Your task to perform on an android device: turn on bluetooth scan Image 0: 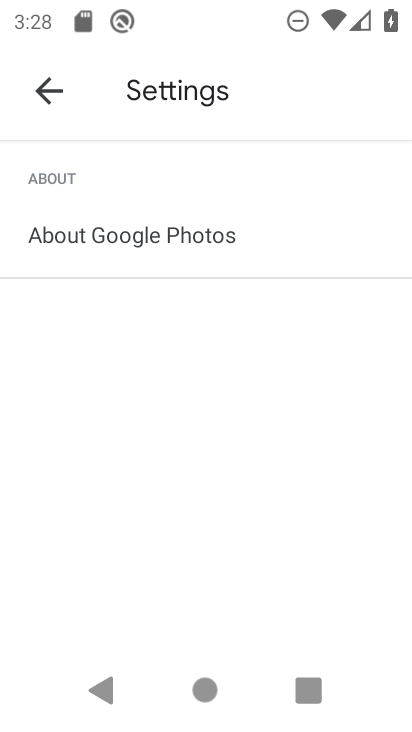
Step 0: press home button
Your task to perform on an android device: turn on bluetooth scan Image 1: 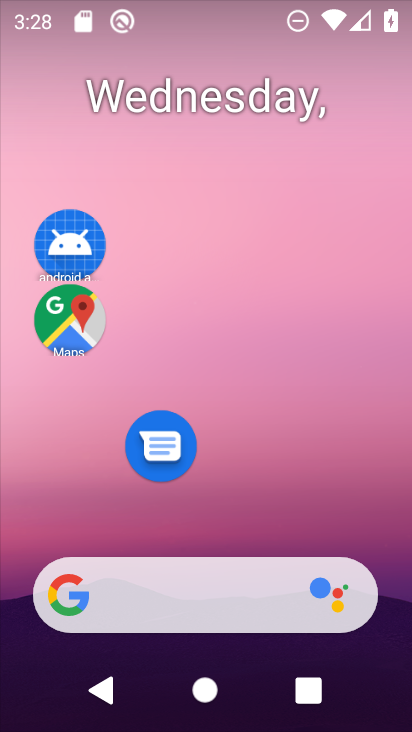
Step 1: drag from (266, 530) to (110, 3)
Your task to perform on an android device: turn on bluetooth scan Image 2: 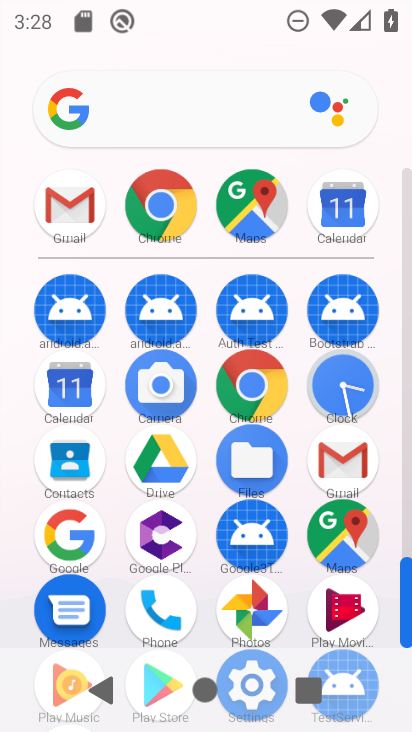
Step 2: click (404, 710)
Your task to perform on an android device: turn on bluetooth scan Image 3: 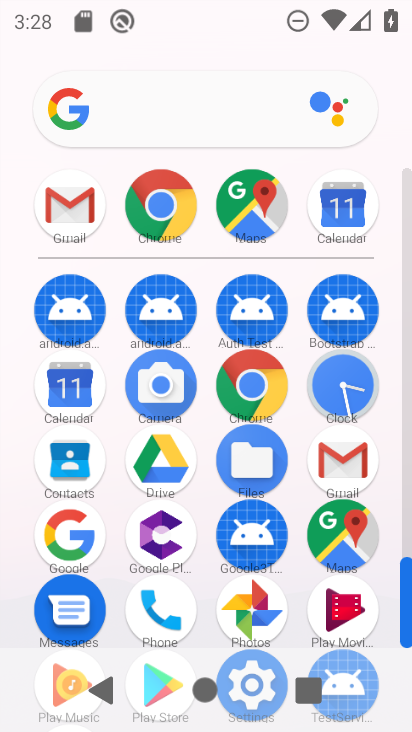
Step 3: drag from (404, 612) to (380, 730)
Your task to perform on an android device: turn on bluetooth scan Image 4: 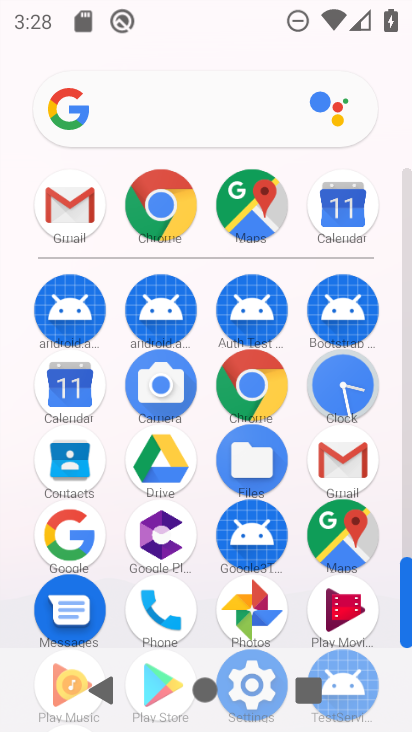
Step 4: drag from (403, 630) to (411, 685)
Your task to perform on an android device: turn on bluetooth scan Image 5: 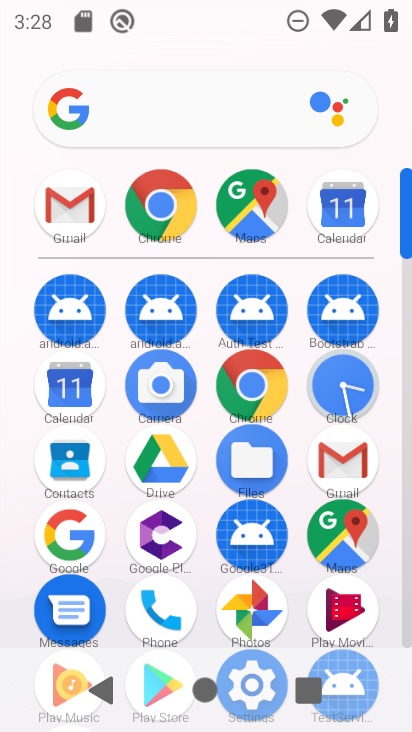
Step 5: click (407, 643)
Your task to perform on an android device: turn on bluetooth scan Image 6: 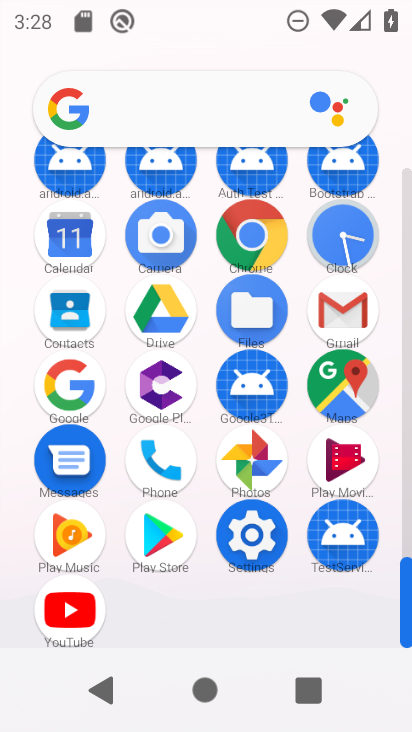
Step 6: click (247, 544)
Your task to perform on an android device: turn on bluetooth scan Image 7: 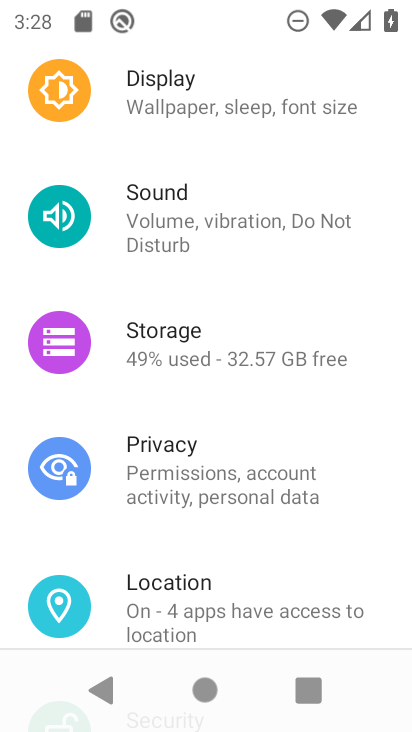
Step 7: click (146, 537)
Your task to perform on an android device: turn on bluetooth scan Image 8: 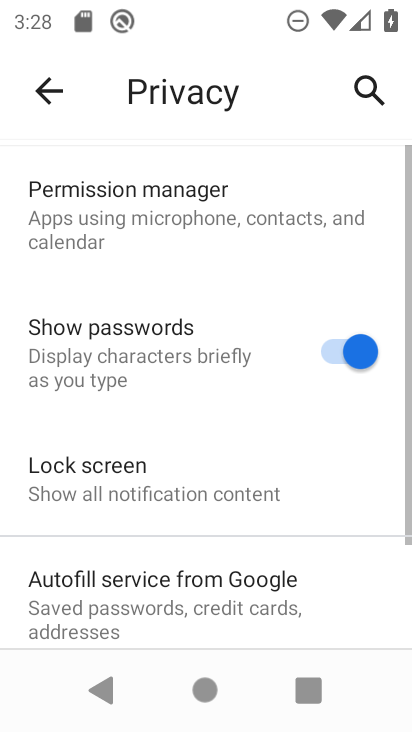
Step 8: click (63, 96)
Your task to perform on an android device: turn on bluetooth scan Image 9: 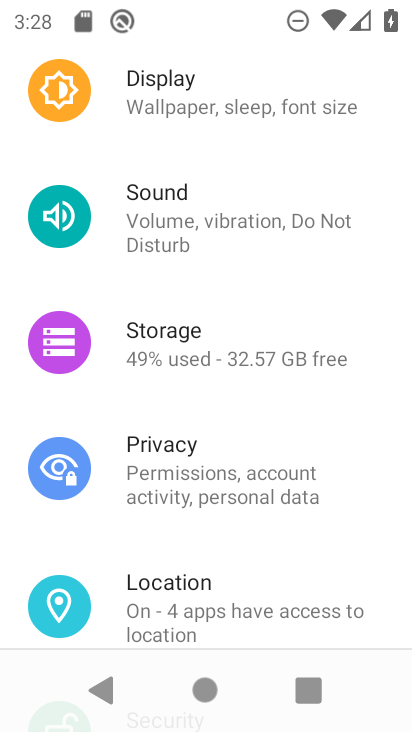
Step 9: click (218, 578)
Your task to perform on an android device: turn on bluetooth scan Image 10: 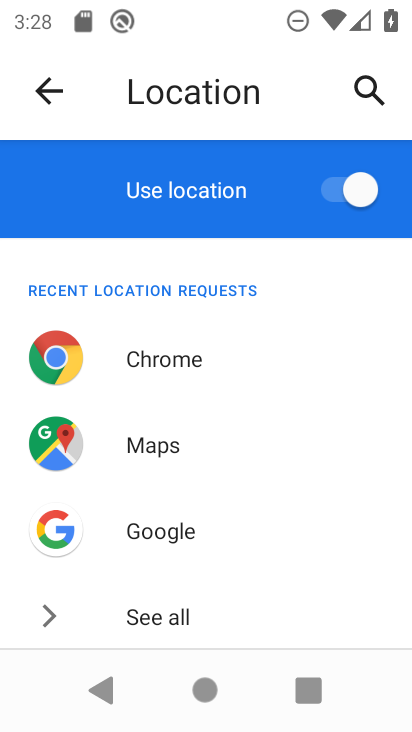
Step 10: drag from (235, 595) to (182, 244)
Your task to perform on an android device: turn on bluetooth scan Image 11: 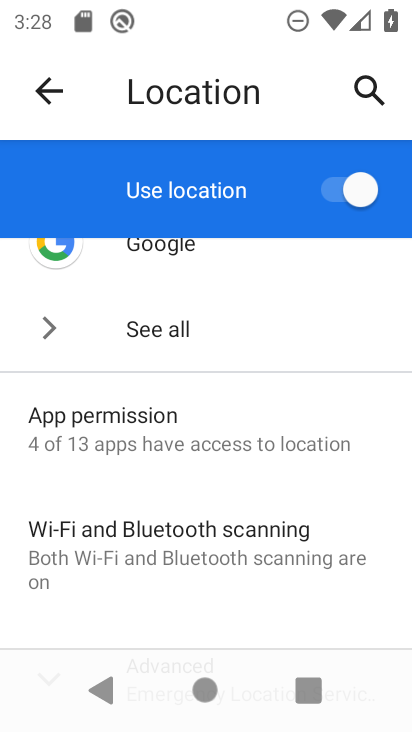
Step 11: click (192, 533)
Your task to perform on an android device: turn on bluetooth scan Image 12: 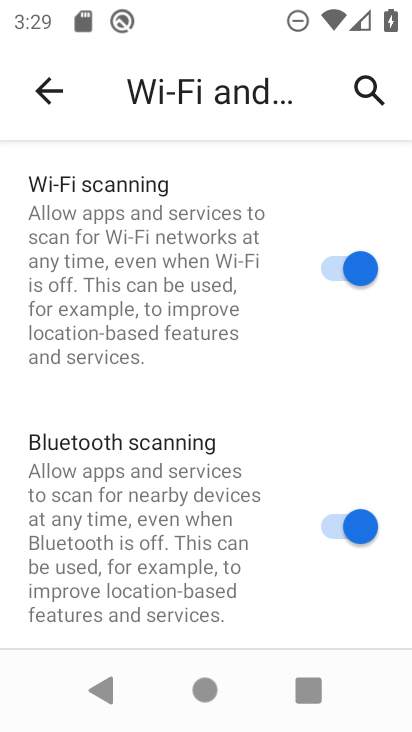
Step 12: task complete